Your task to perform on an android device: search for starred emails in the gmail app Image 0: 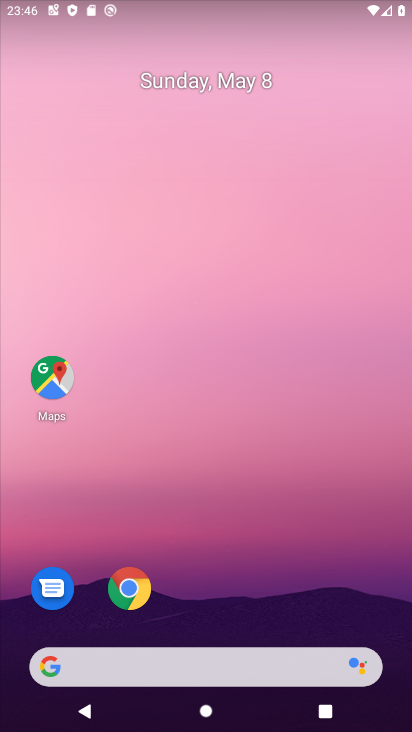
Step 0: drag from (242, 558) to (160, 0)
Your task to perform on an android device: search for starred emails in the gmail app Image 1: 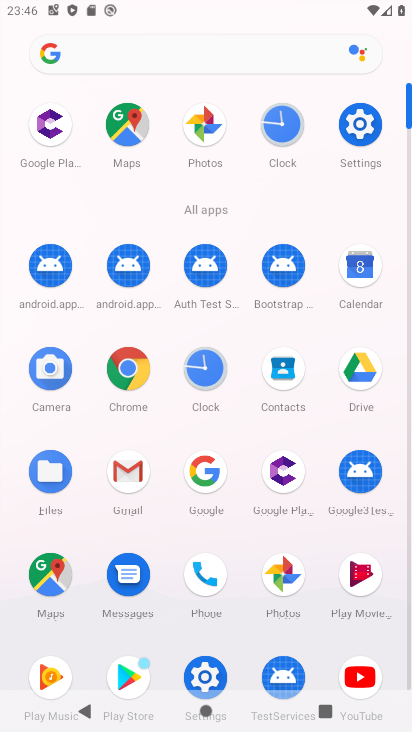
Step 1: click (116, 473)
Your task to perform on an android device: search for starred emails in the gmail app Image 2: 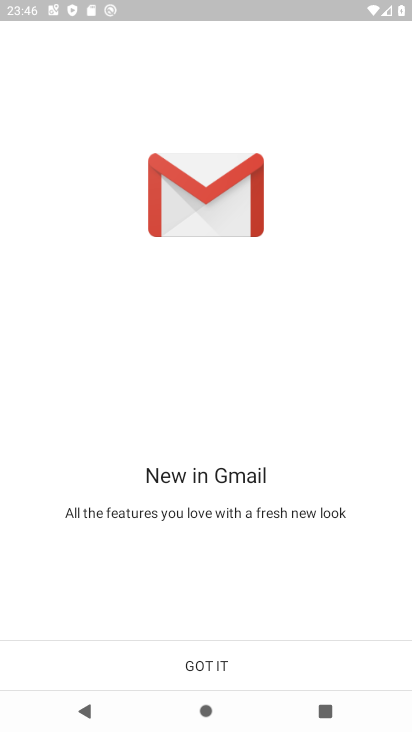
Step 2: click (204, 665)
Your task to perform on an android device: search for starred emails in the gmail app Image 3: 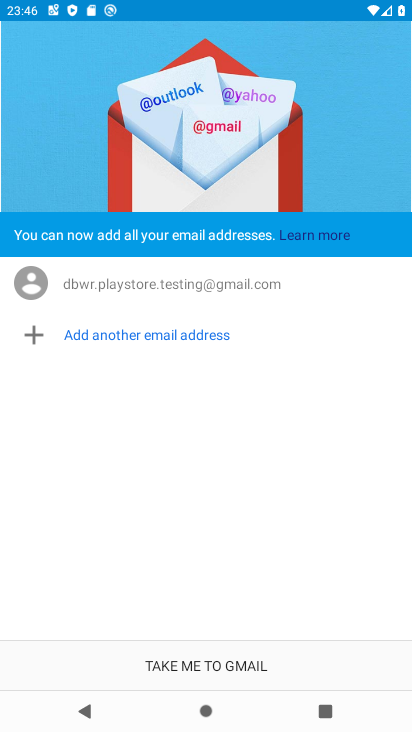
Step 3: click (204, 665)
Your task to perform on an android device: search for starred emails in the gmail app Image 4: 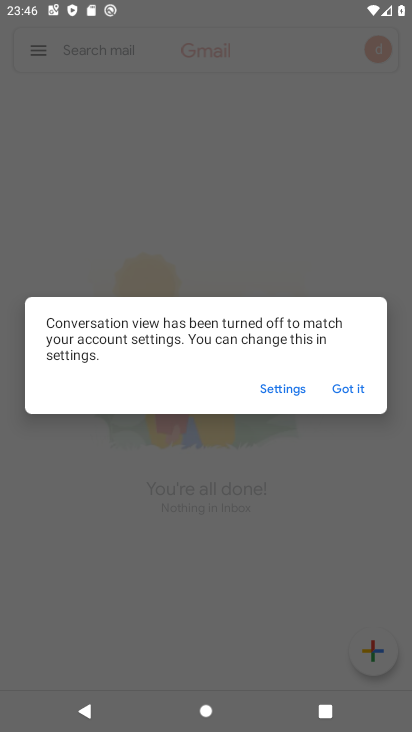
Step 4: click (345, 388)
Your task to perform on an android device: search for starred emails in the gmail app Image 5: 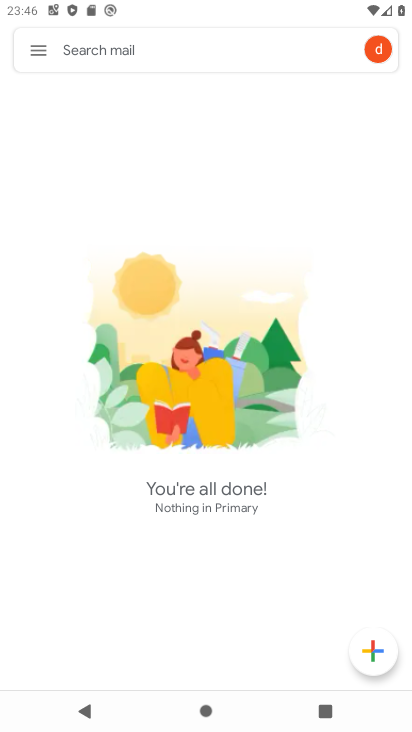
Step 5: click (33, 50)
Your task to perform on an android device: search for starred emails in the gmail app Image 6: 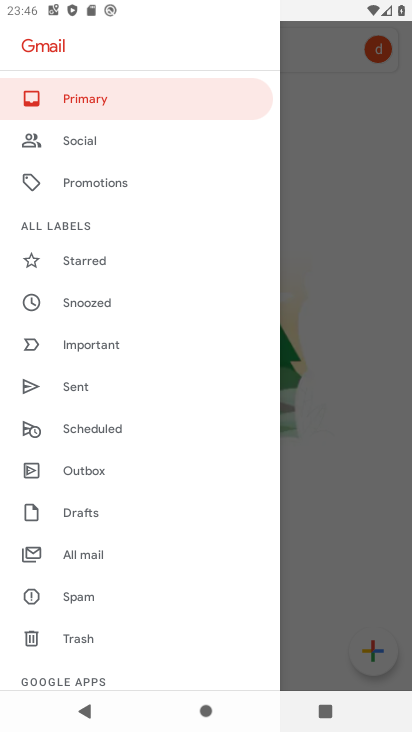
Step 6: click (90, 259)
Your task to perform on an android device: search for starred emails in the gmail app Image 7: 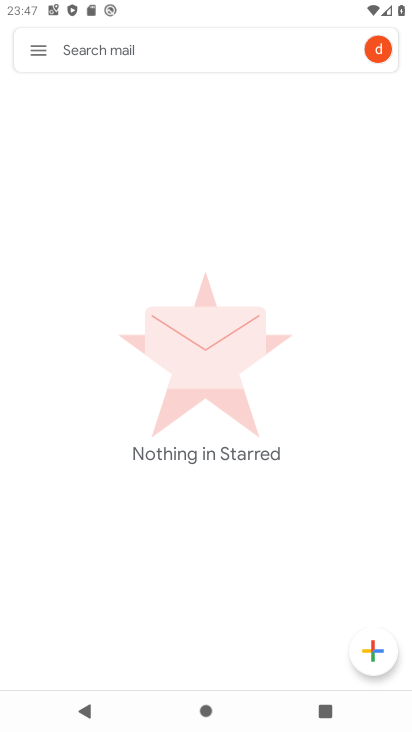
Step 7: task complete